Your task to perform on an android device: Set the phone to "Do not disturb". Image 0: 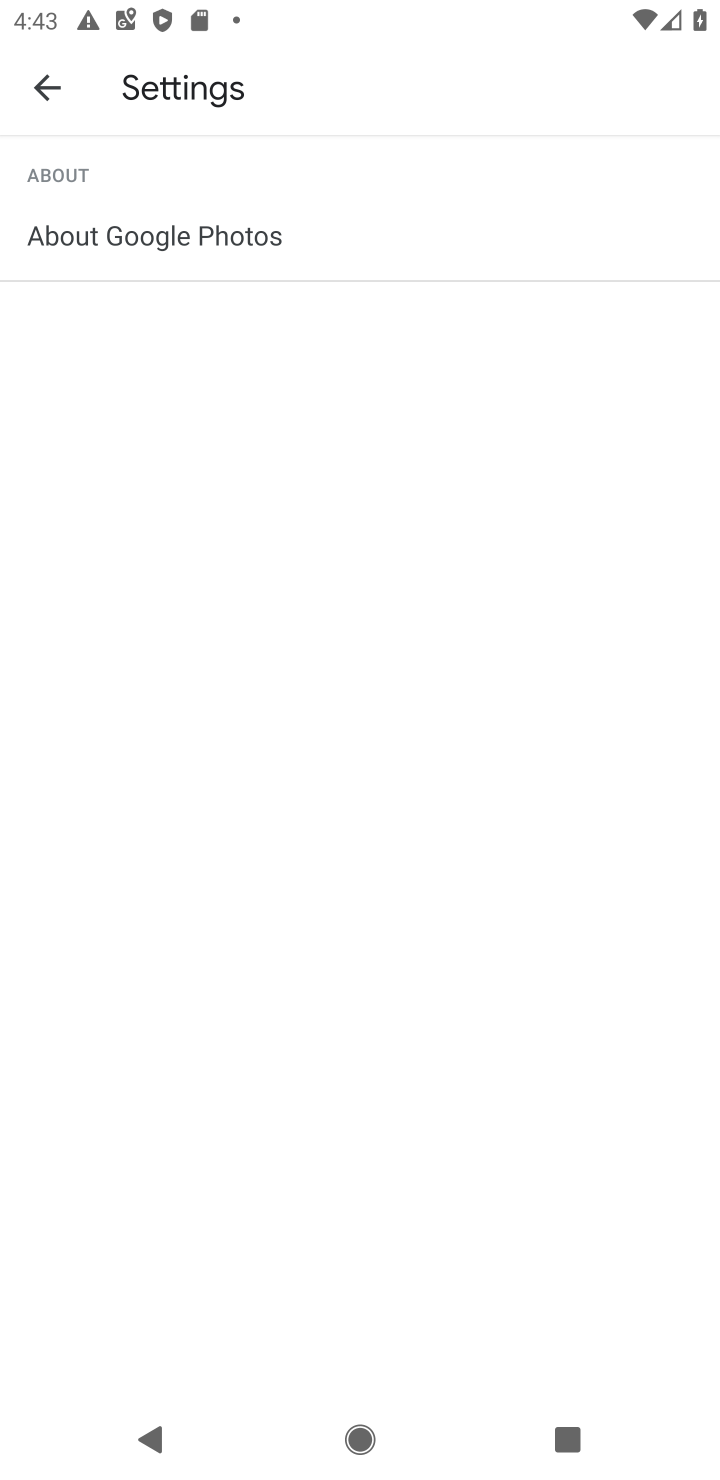
Step 0: press home button
Your task to perform on an android device: Set the phone to "Do not disturb". Image 1: 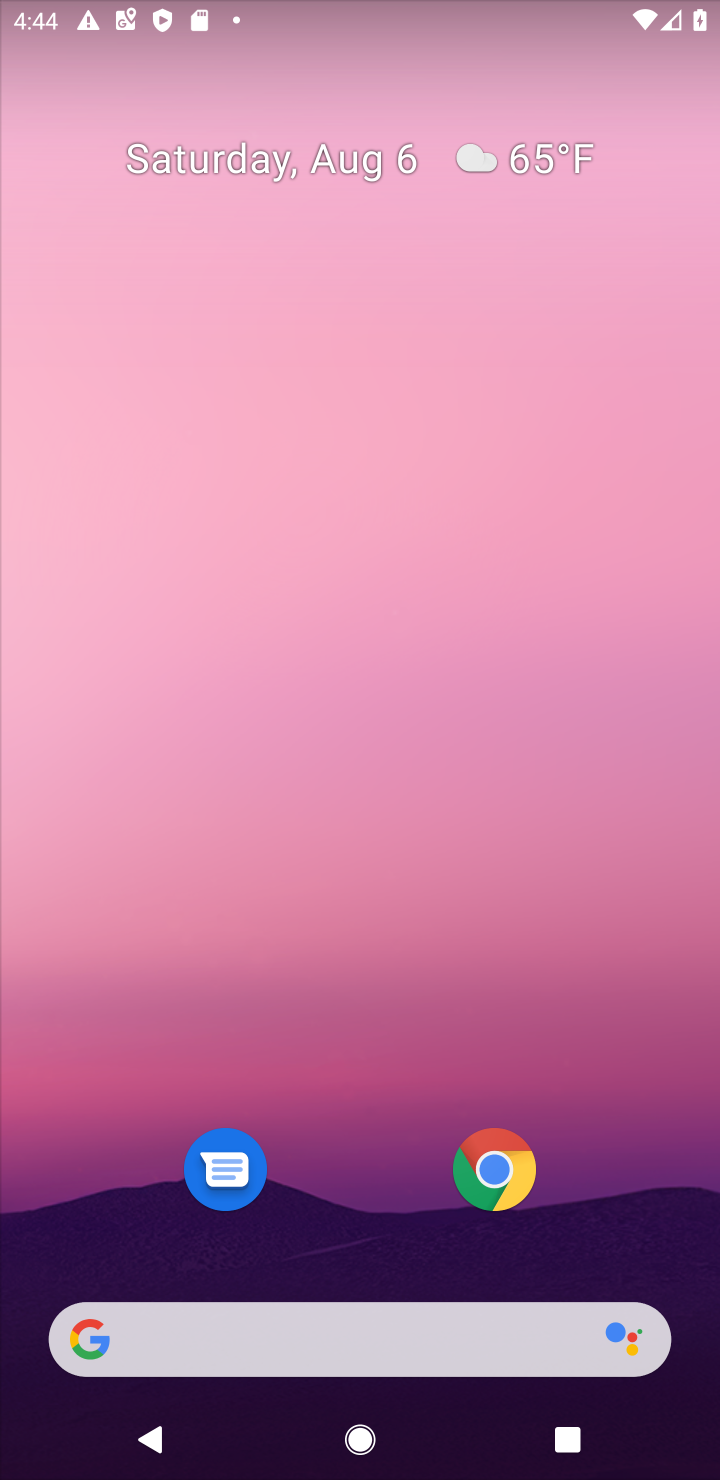
Step 1: drag from (355, 1202) to (266, 234)
Your task to perform on an android device: Set the phone to "Do not disturb". Image 2: 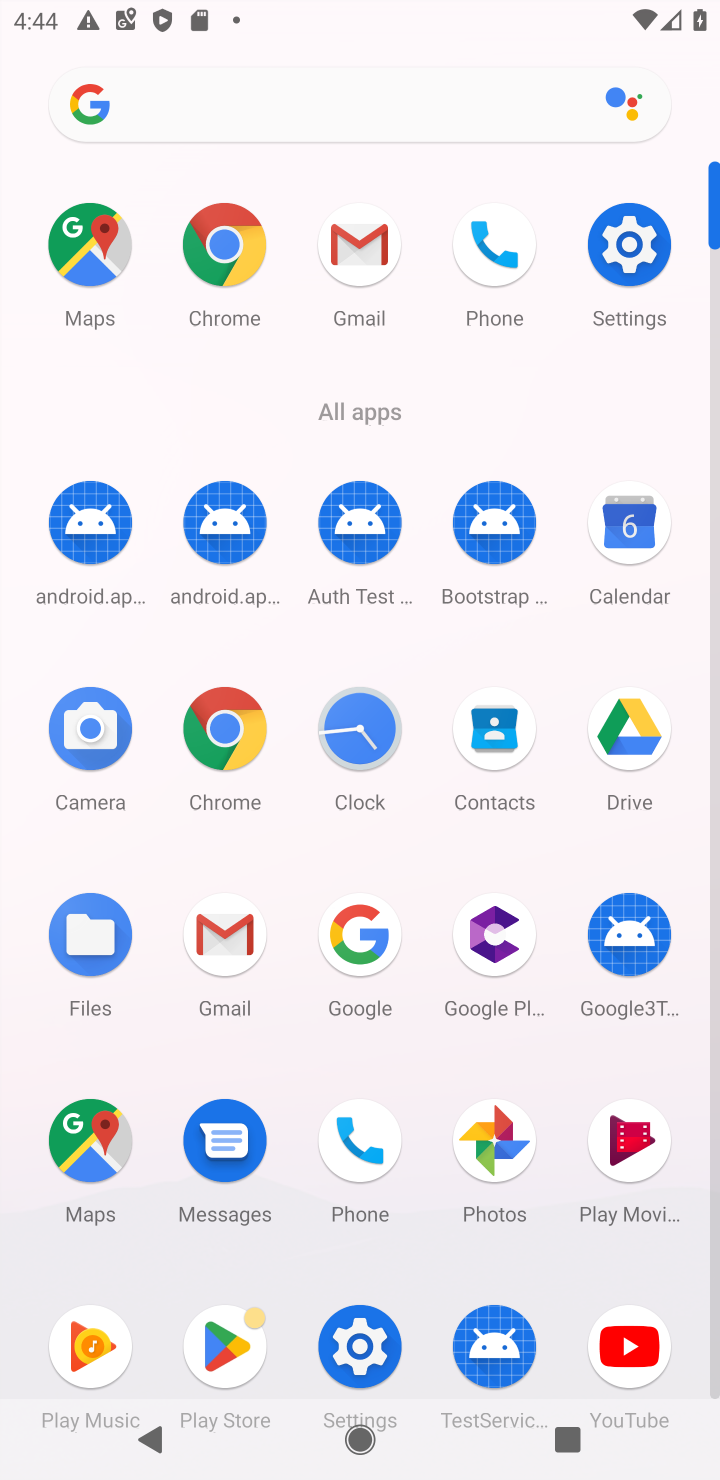
Step 2: click (636, 220)
Your task to perform on an android device: Set the phone to "Do not disturb". Image 3: 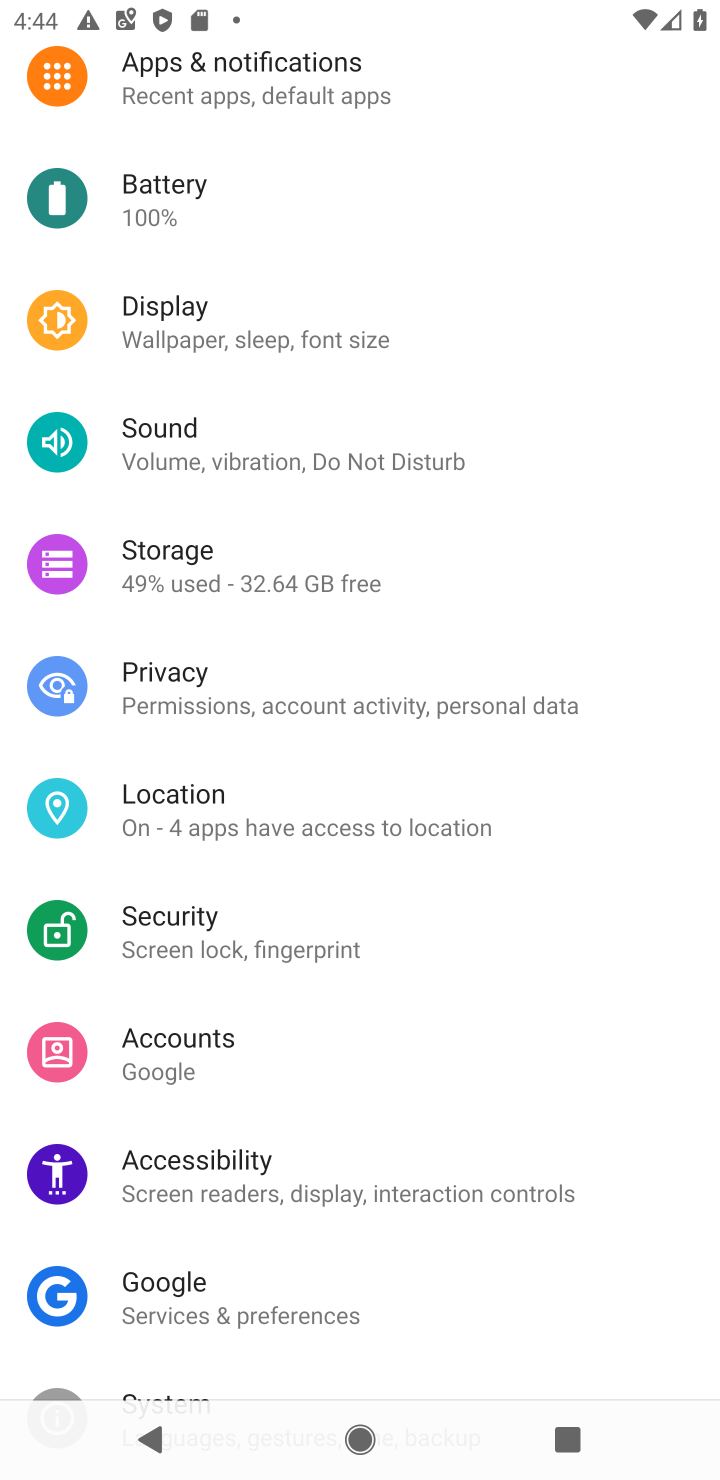
Step 3: click (416, 460)
Your task to perform on an android device: Set the phone to "Do not disturb". Image 4: 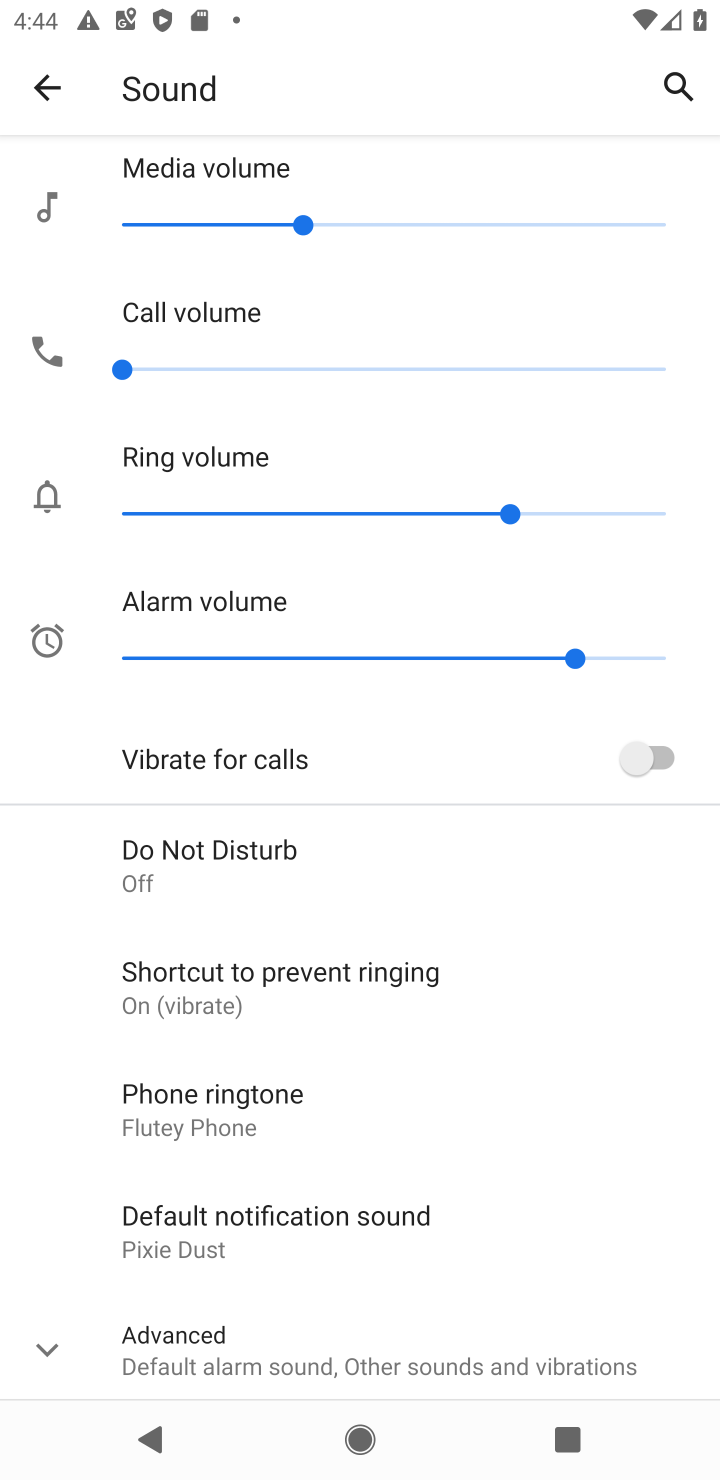
Step 4: click (333, 851)
Your task to perform on an android device: Set the phone to "Do not disturb". Image 5: 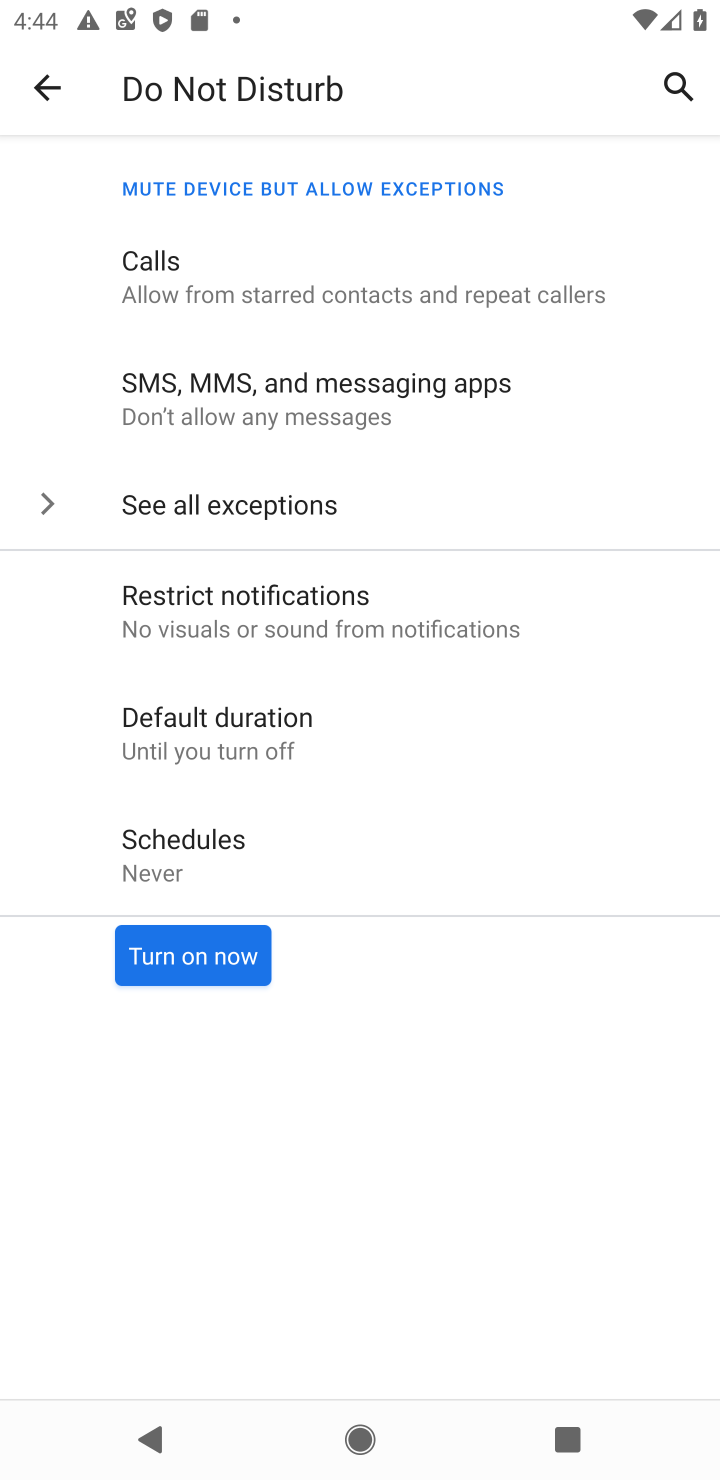
Step 5: click (200, 975)
Your task to perform on an android device: Set the phone to "Do not disturb". Image 6: 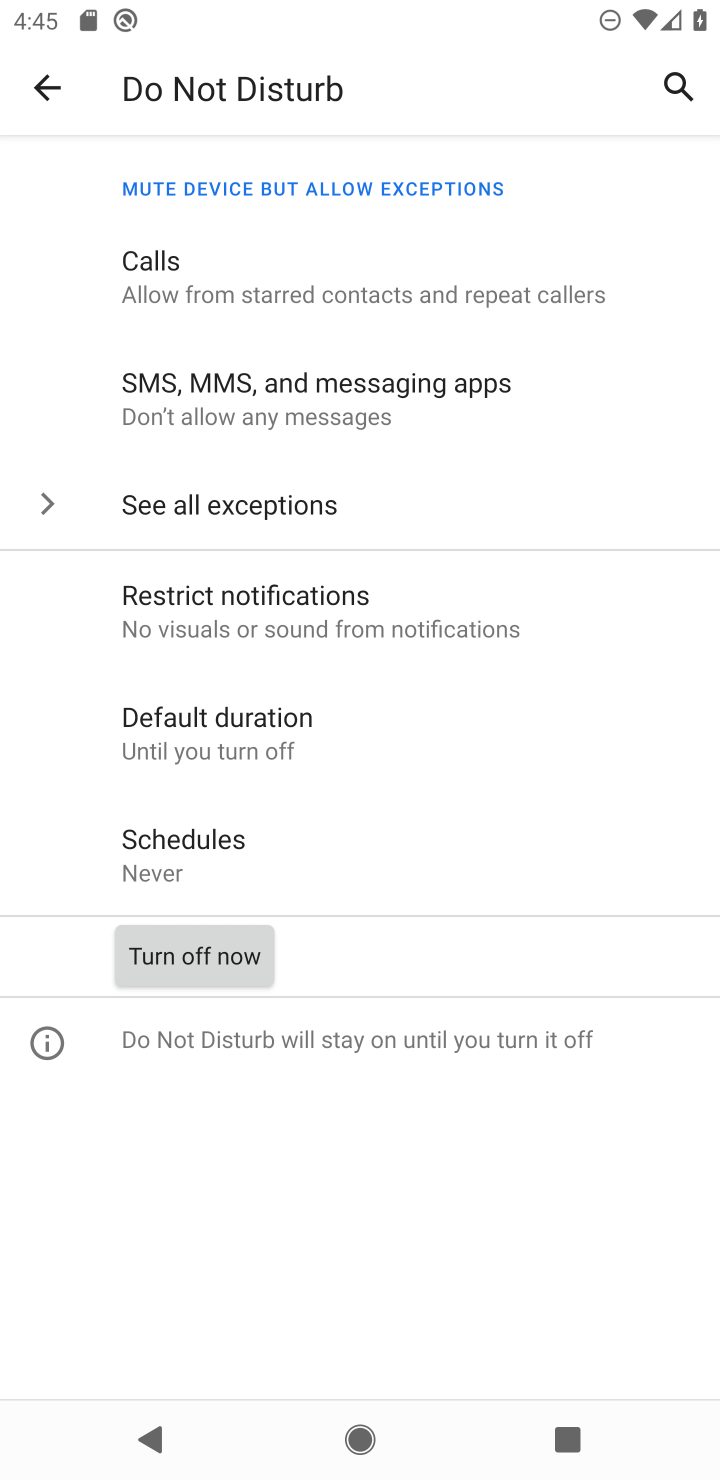
Step 6: task complete